Your task to perform on an android device: Open notification settings Image 0: 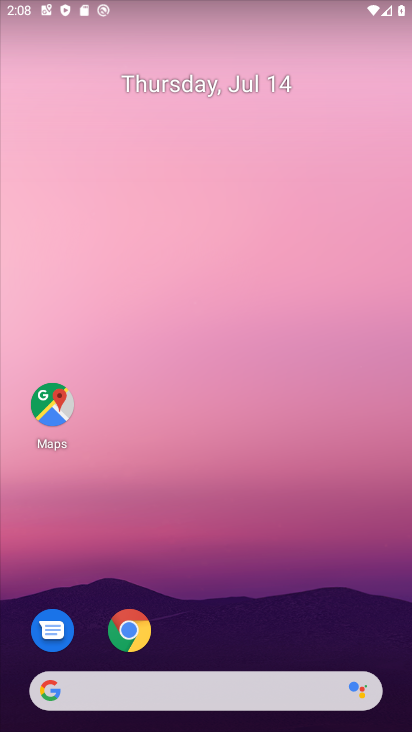
Step 0: drag from (224, 636) to (309, 238)
Your task to perform on an android device: Open notification settings Image 1: 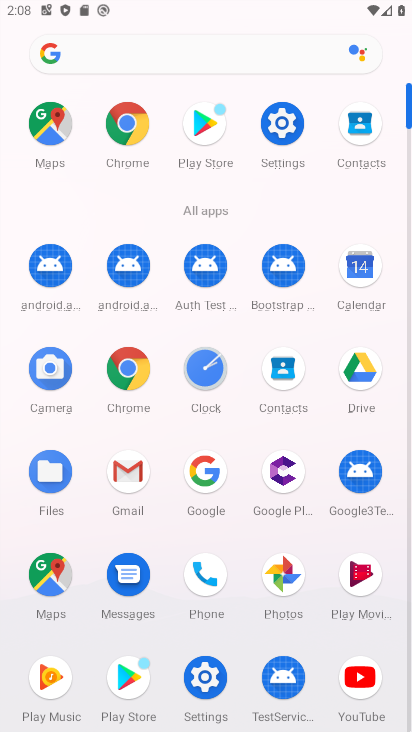
Step 1: click (285, 139)
Your task to perform on an android device: Open notification settings Image 2: 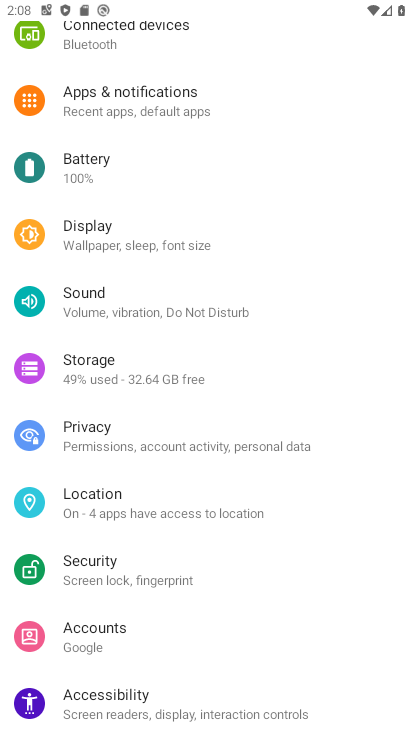
Step 2: click (239, 109)
Your task to perform on an android device: Open notification settings Image 3: 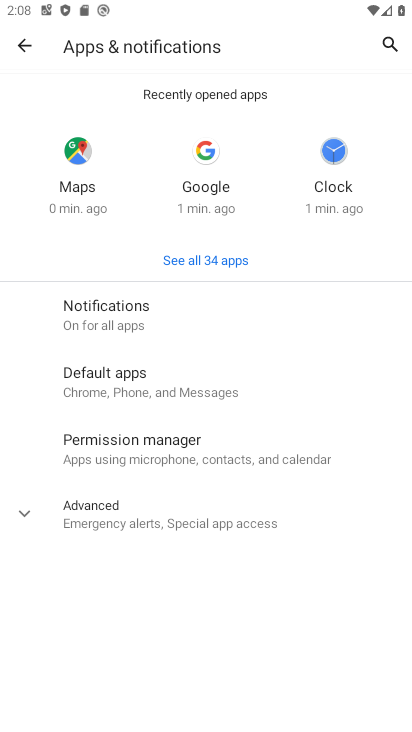
Step 3: task complete